Your task to perform on an android device: turn off data saver in the chrome app Image 0: 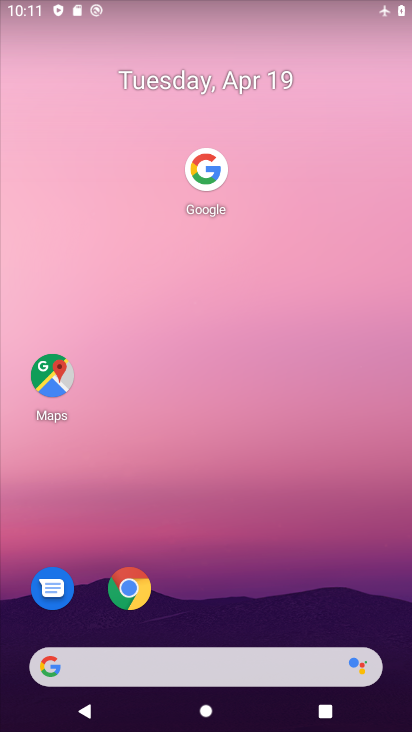
Step 0: click (129, 591)
Your task to perform on an android device: turn off data saver in the chrome app Image 1: 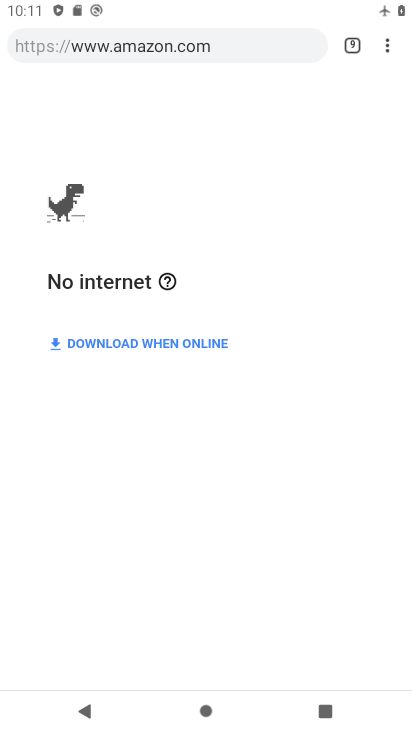
Step 1: click (389, 46)
Your task to perform on an android device: turn off data saver in the chrome app Image 2: 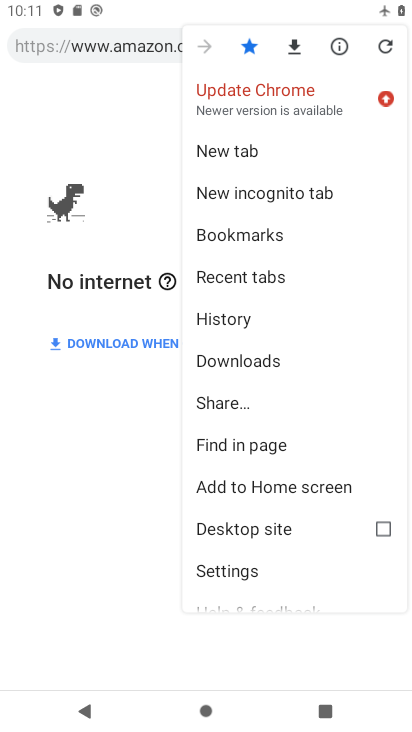
Step 2: click (237, 569)
Your task to perform on an android device: turn off data saver in the chrome app Image 3: 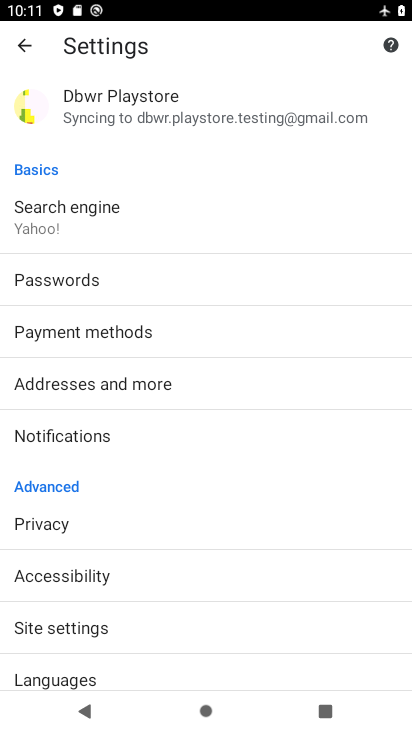
Step 3: drag from (201, 492) to (279, 144)
Your task to perform on an android device: turn off data saver in the chrome app Image 4: 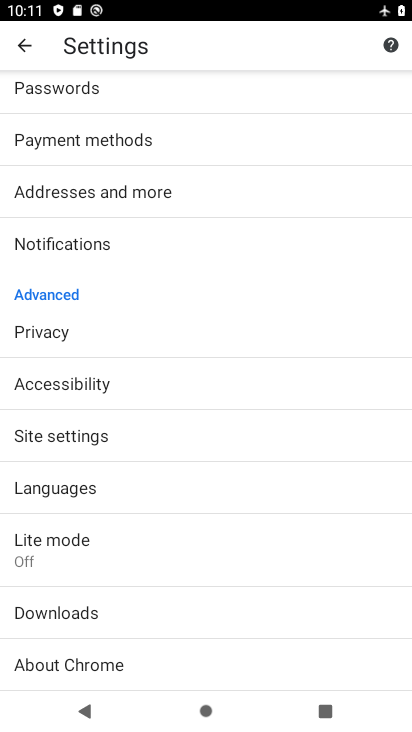
Step 4: click (60, 538)
Your task to perform on an android device: turn off data saver in the chrome app Image 5: 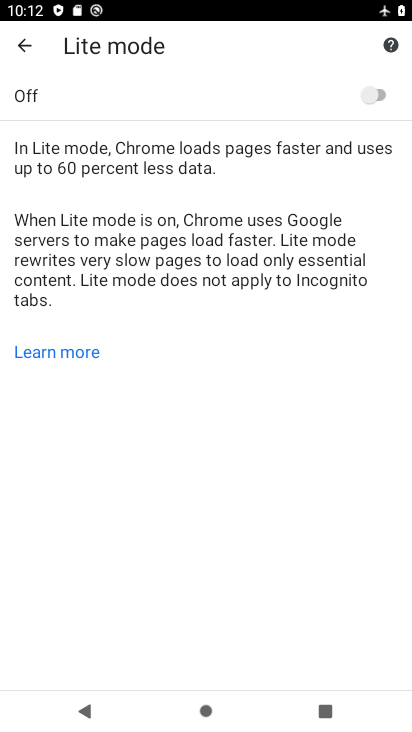
Step 5: task complete